Your task to perform on an android device: check data usage Image 0: 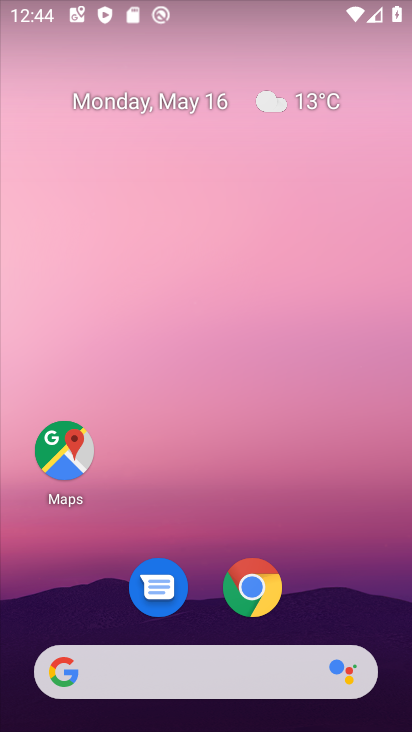
Step 0: drag from (227, 704) to (198, 247)
Your task to perform on an android device: check data usage Image 1: 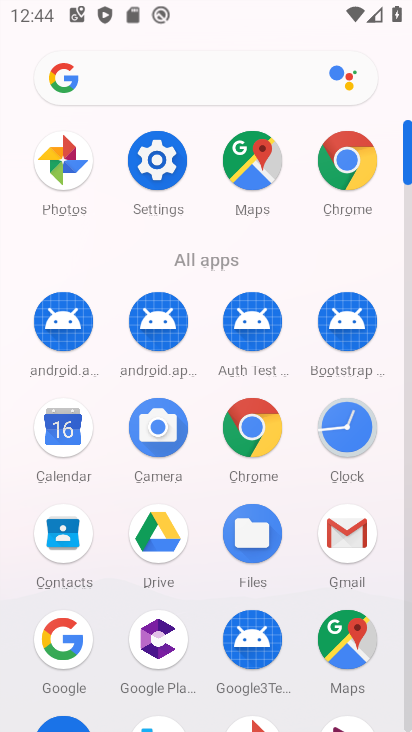
Step 1: click (158, 153)
Your task to perform on an android device: check data usage Image 2: 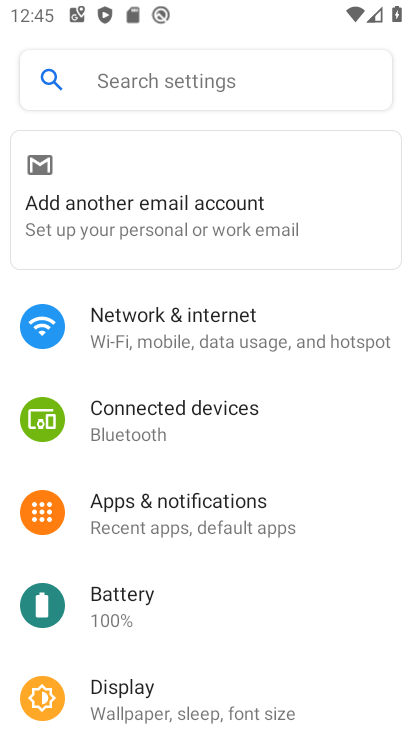
Step 2: drag from (204, 610) to (197, 350)
Your task to perform on an android device: check data usage Image 3: 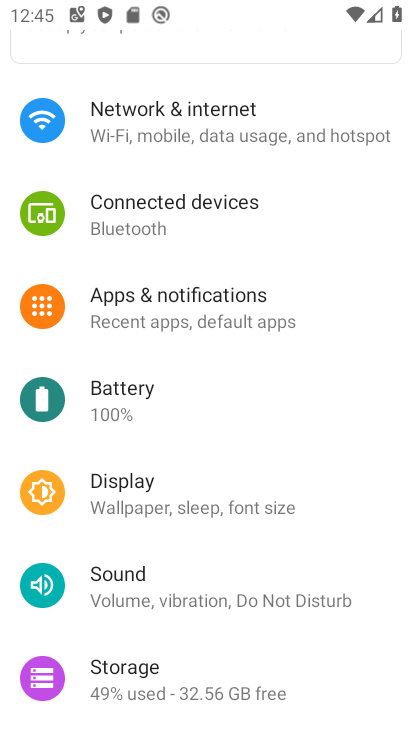
Step 3: click (171, 134)
Your task to perform on an android device: check data usage Image 4: 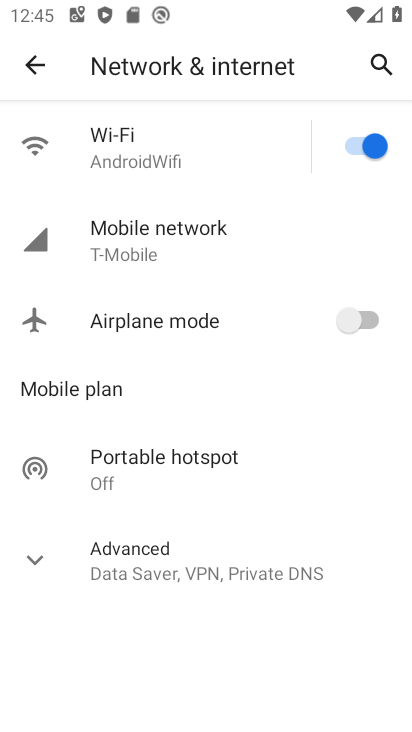
Step 4: click (134, 240)
Your task to perform on an android device: check data usage Image 5: 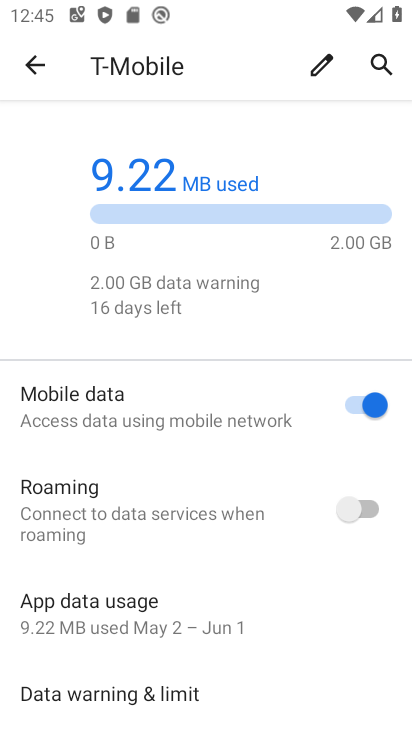
Step 5: click (106, 607)
Your task to perform on an android device: check data usage Image 6: 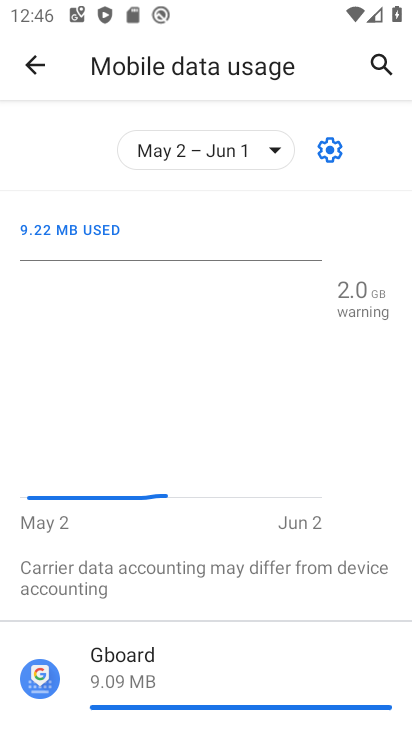
Step 6: task complete